Your task to perform on an android device: set the timer Image 0: 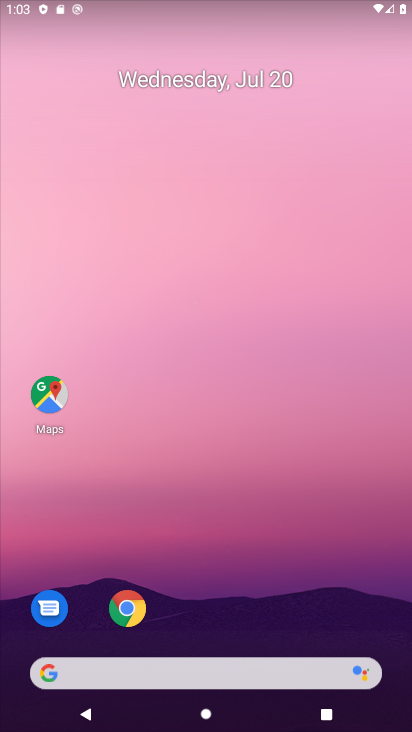
Step 0: drag from (215, 676) to (234, 207)
Your task to perform on an android device: set the timer Image 1: 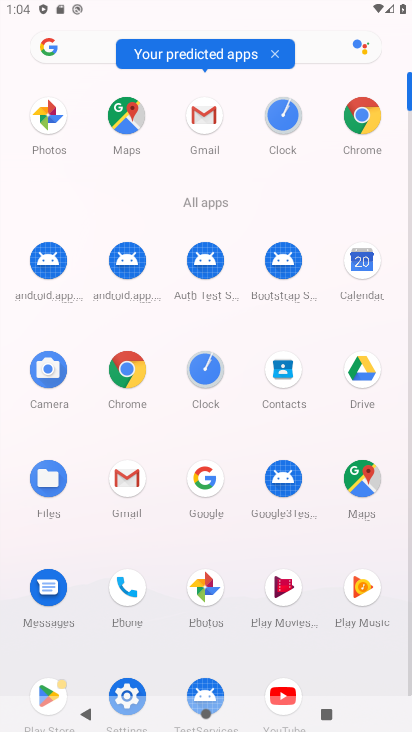
Step 1: click (284, 116)
Your task to perform on an android device: set the timer Image 2: 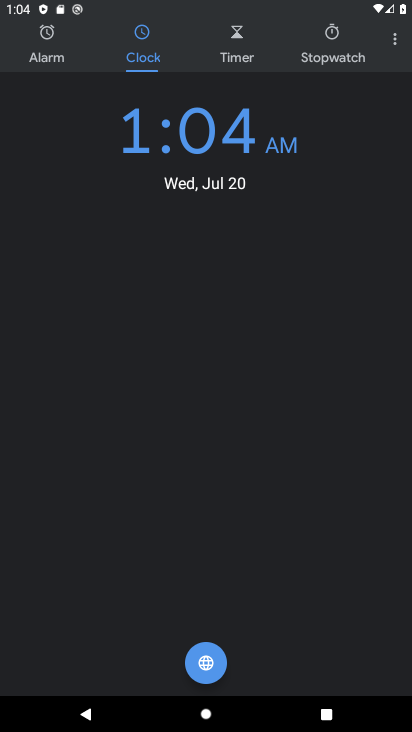
Step 2: click (234, 33)
Your task to perform on an android device: set the timer Image 3: 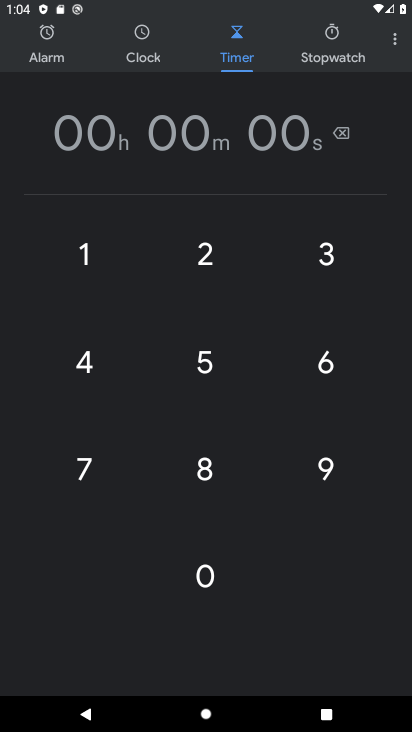
Step 3: type "135"
Your task to perform on an android device: set the timer Image 4: 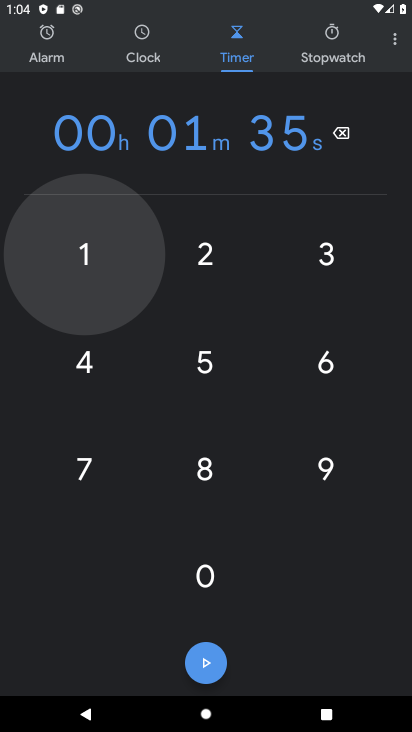
Step 4: click (210, 659)
Your task to perform on an android device: set the timer Image 5: 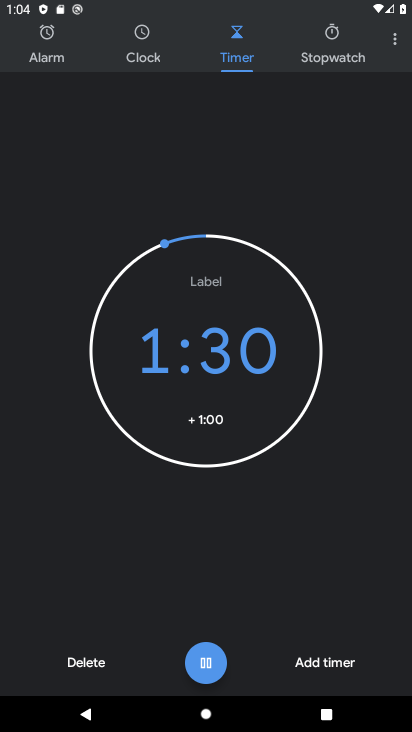
Step 5: click (210, 659)
Your task to perform on an android device: set the timer Image 6: 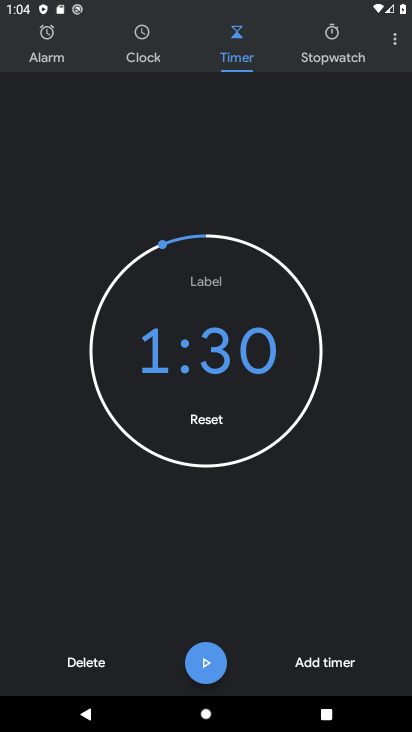
Step 6: task complete